Your task to perform on an android device: Install the Yahoo app Image 0: 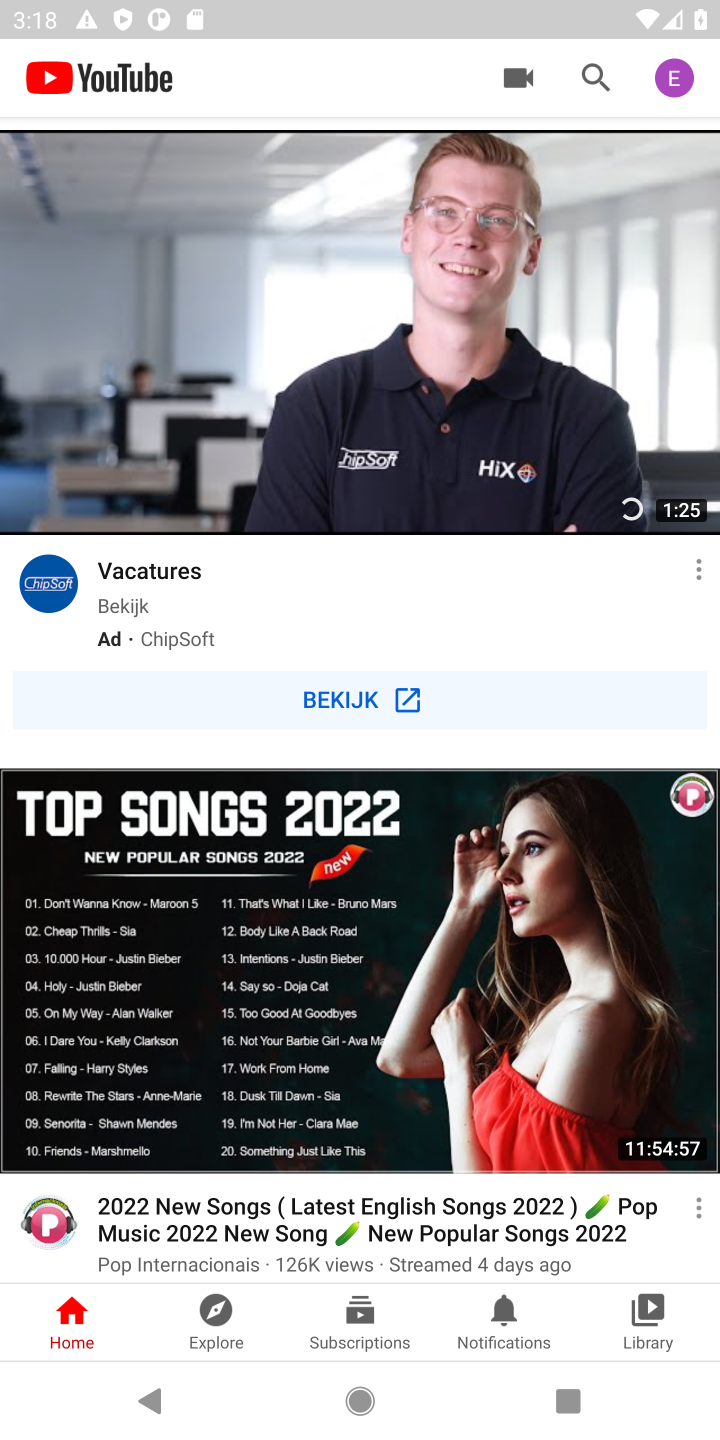
Step 0: press home button
Your task to perform on an android device: Install the Yahoo app Image 1: 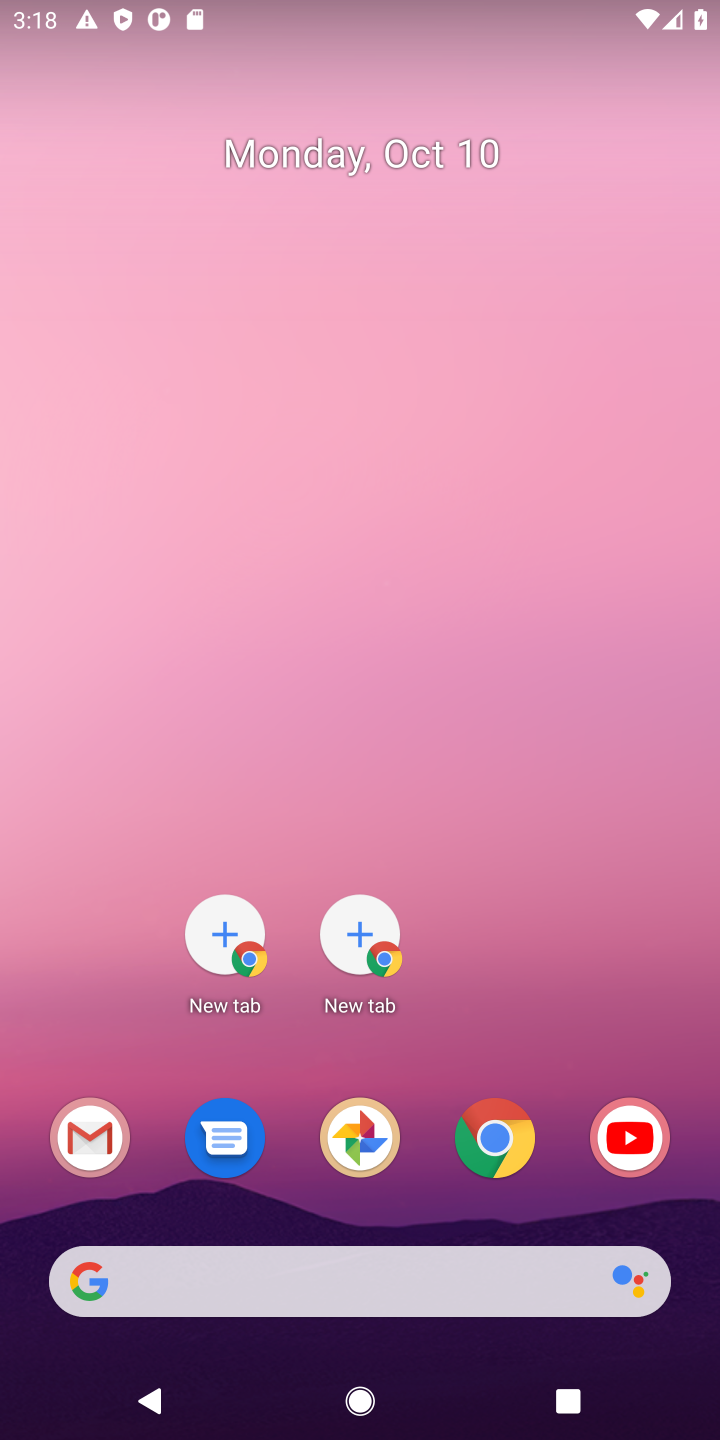
Step 1: drag from (361, 1252) to (376, 54)
Your task to perform on an android device: Install the Yahoo app Image 2: 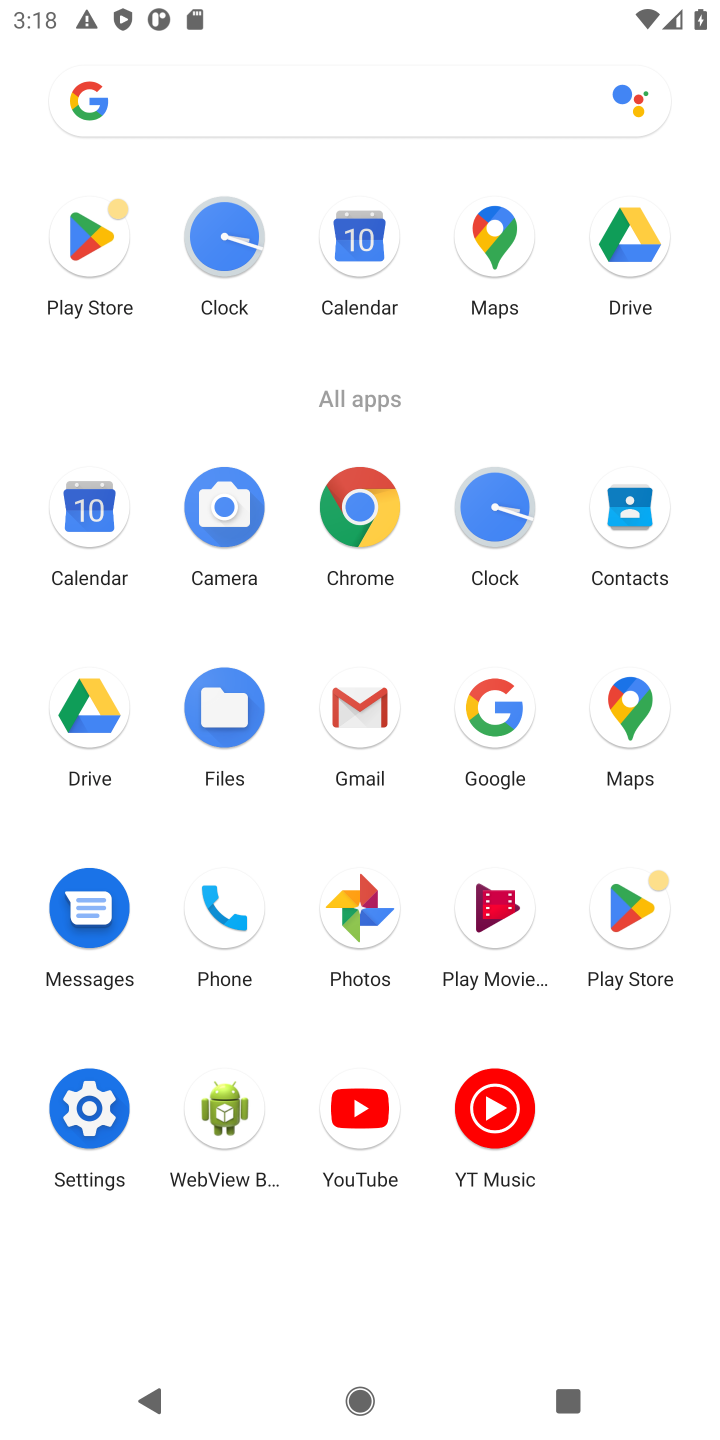
Step 2: click (654, 926)
Your task to perform on an android device: Install the Yahoo app Image 3: 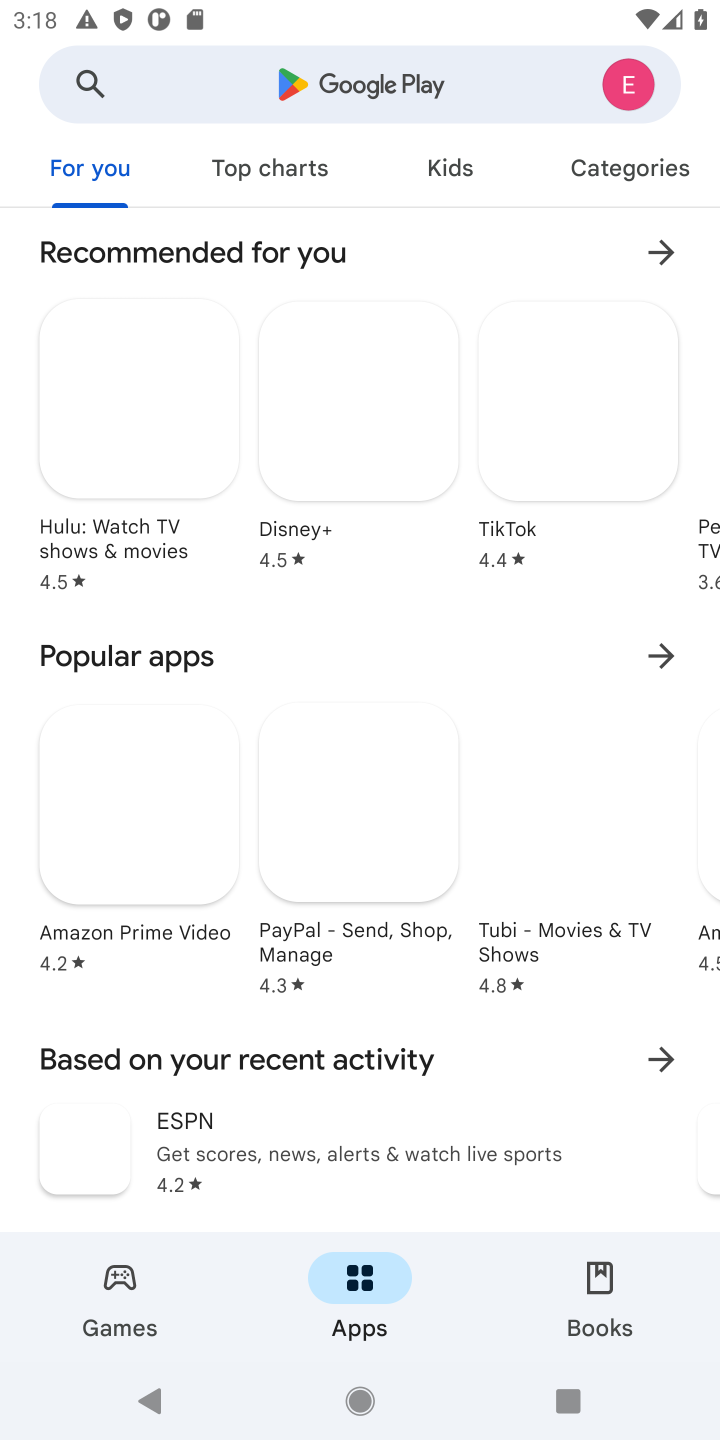
Step 3: click (377, 102)
Your task to perform on an android device: Install the Yahoo app Image 4: 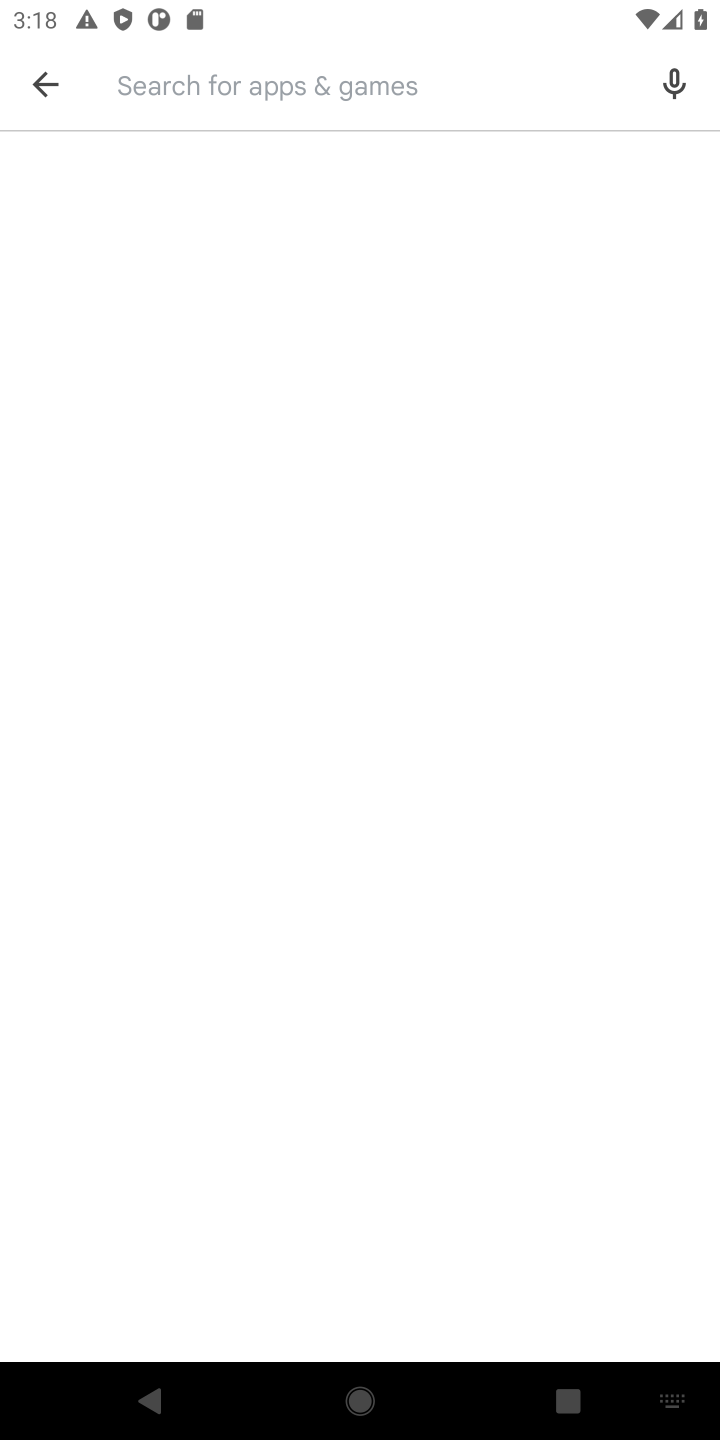
Step 4: type "yahoo"
Your task to perform on an android device: Install the Yahoo app Image 5: 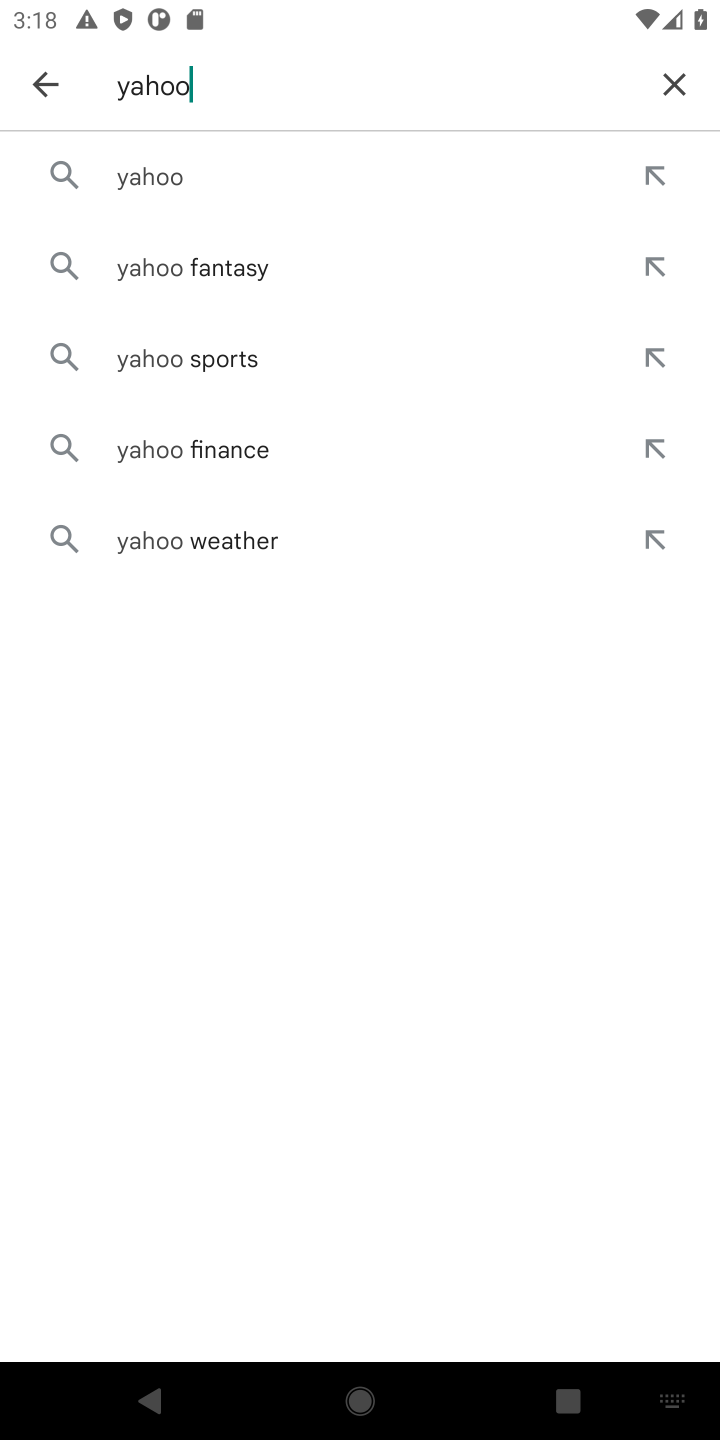
Step 5: type ""
Your task to perform on an android device: Install the Yahoo app Image 6: 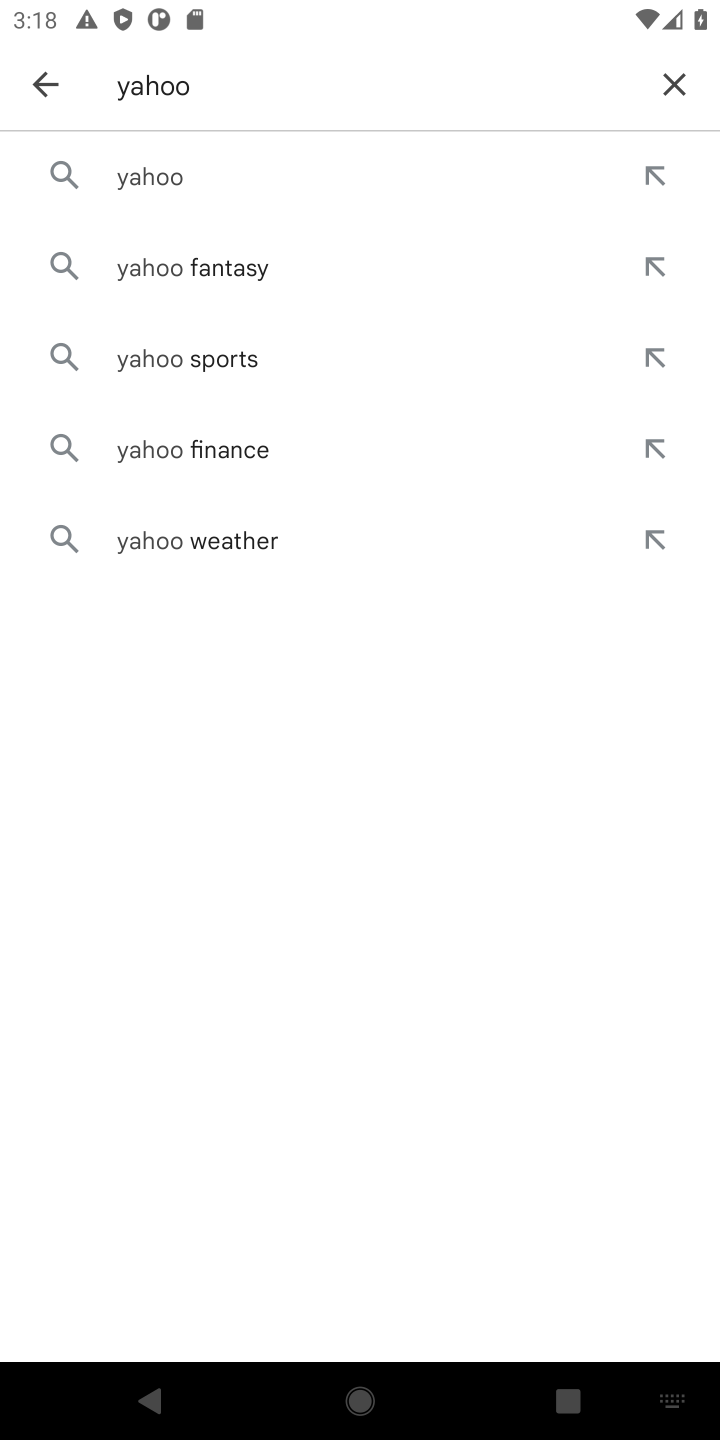
Step 6: press enter
Your task to perform on an android device: Install the Yahoo app Image 7: 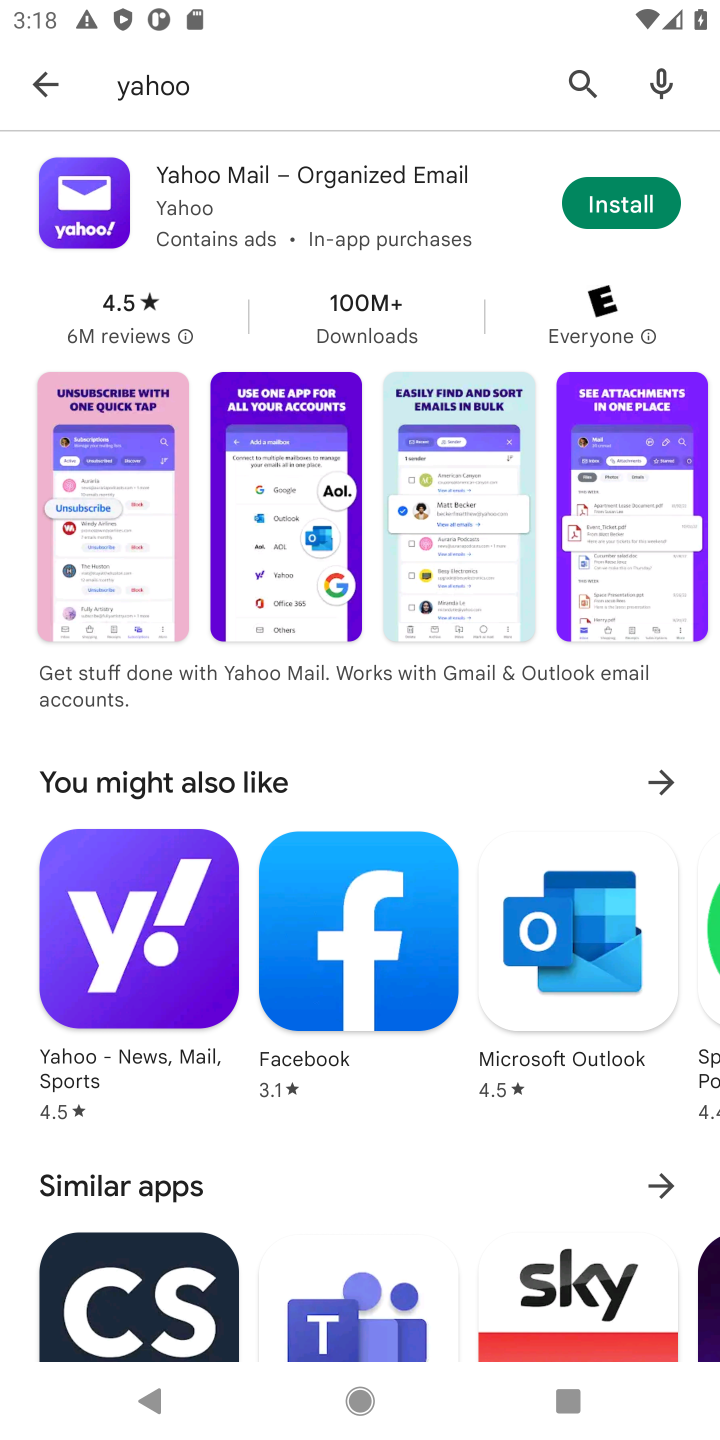
Step 7: click (628, 209)
Your task to perform on an android device: Install the Yahoo app Image 8: 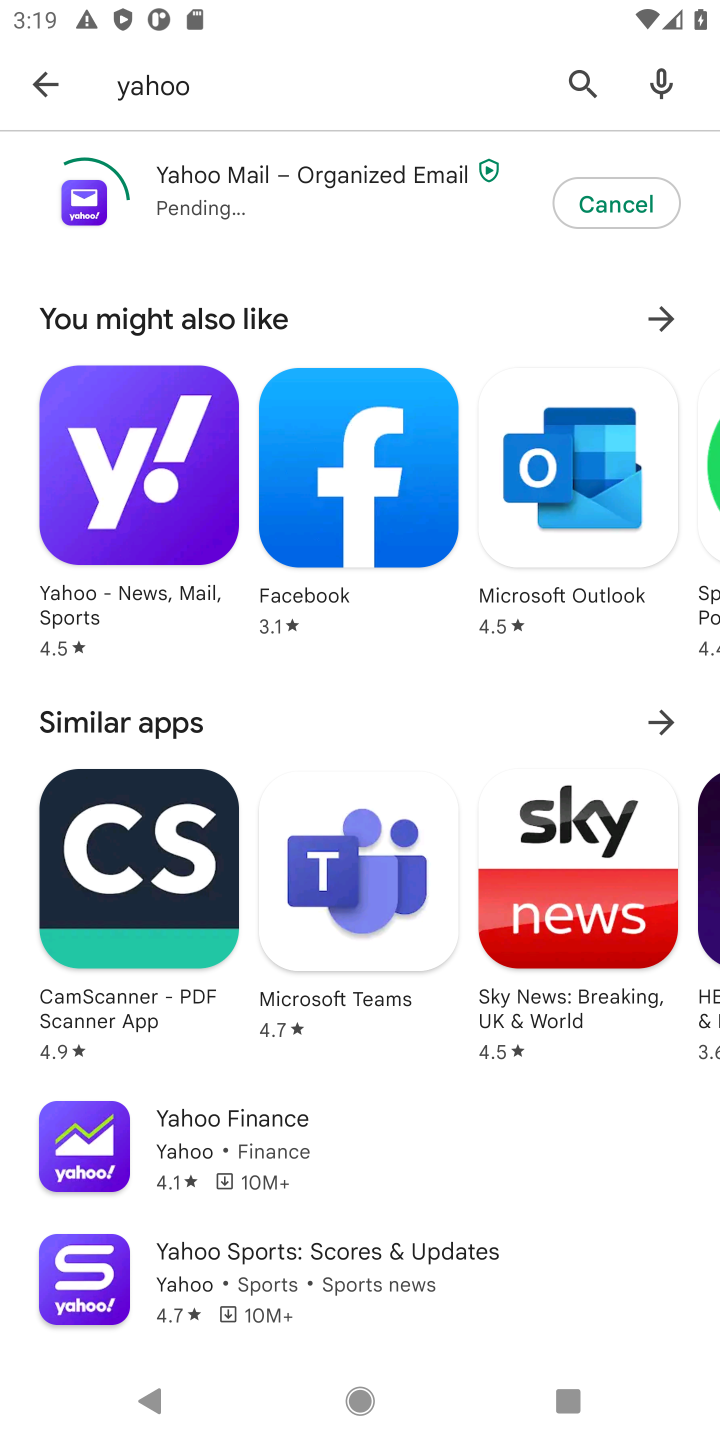
Step 8: click (128, 593)
Your task to perform on an android device: Install the Yahoo app Image 9: 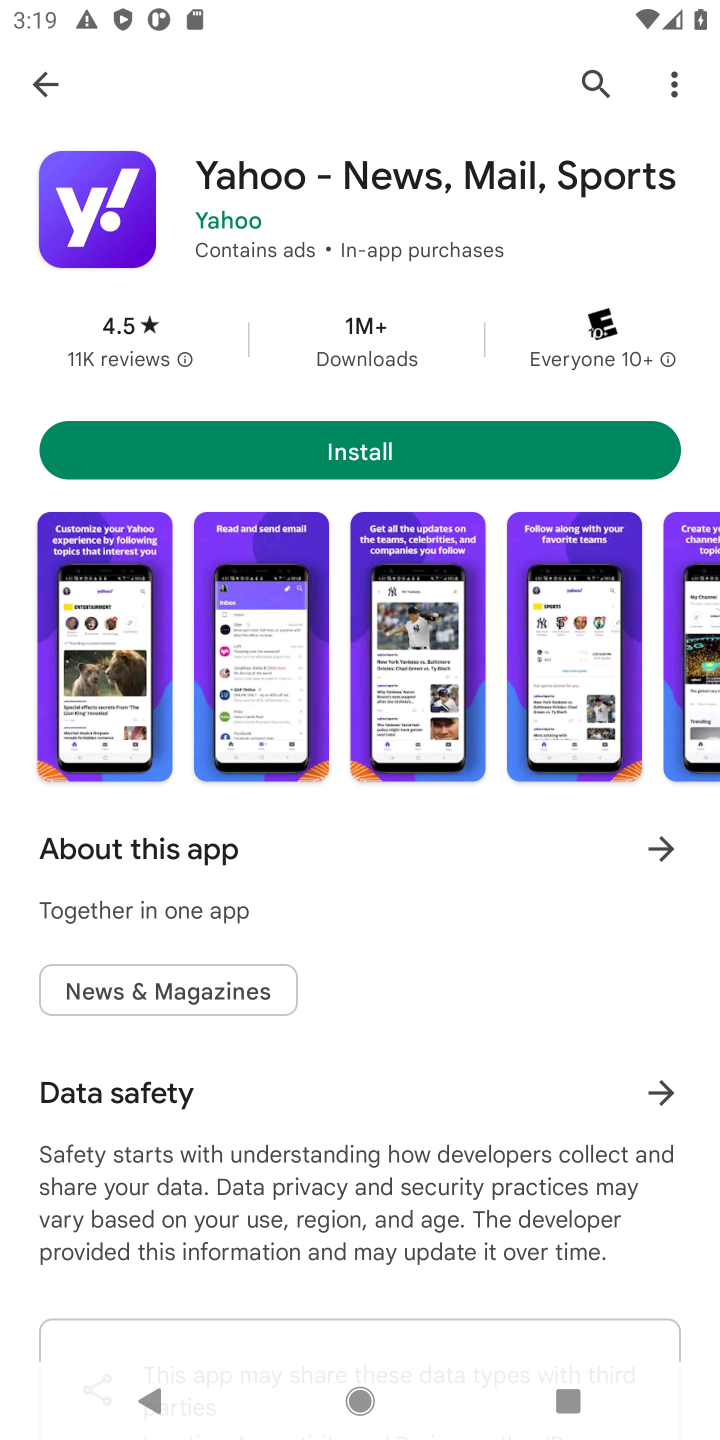
Step 9: click (505, 461)
Your task to perform on an android device: Install the Yahoo app Image 10: 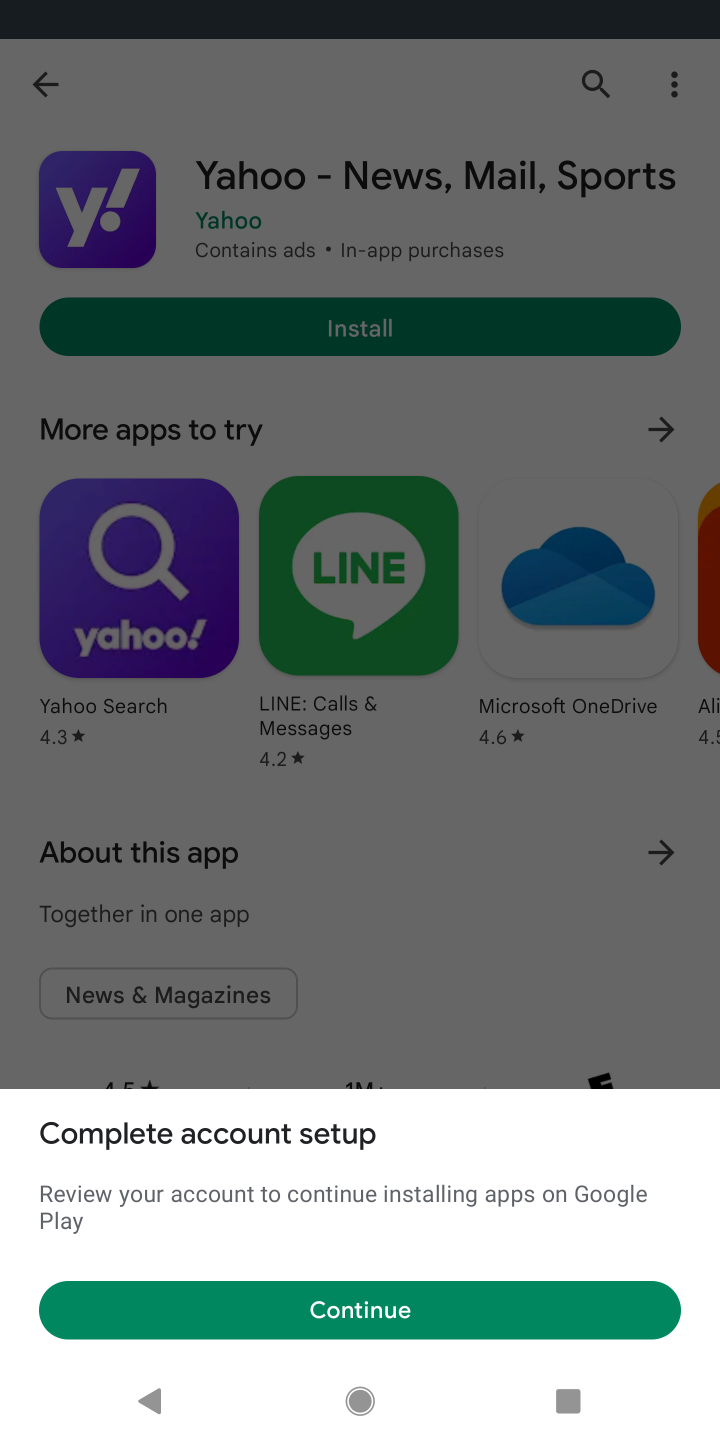
Step 10: click (411, 984)
Your task to perform on an android device: Install the Yahoo app Image 11: 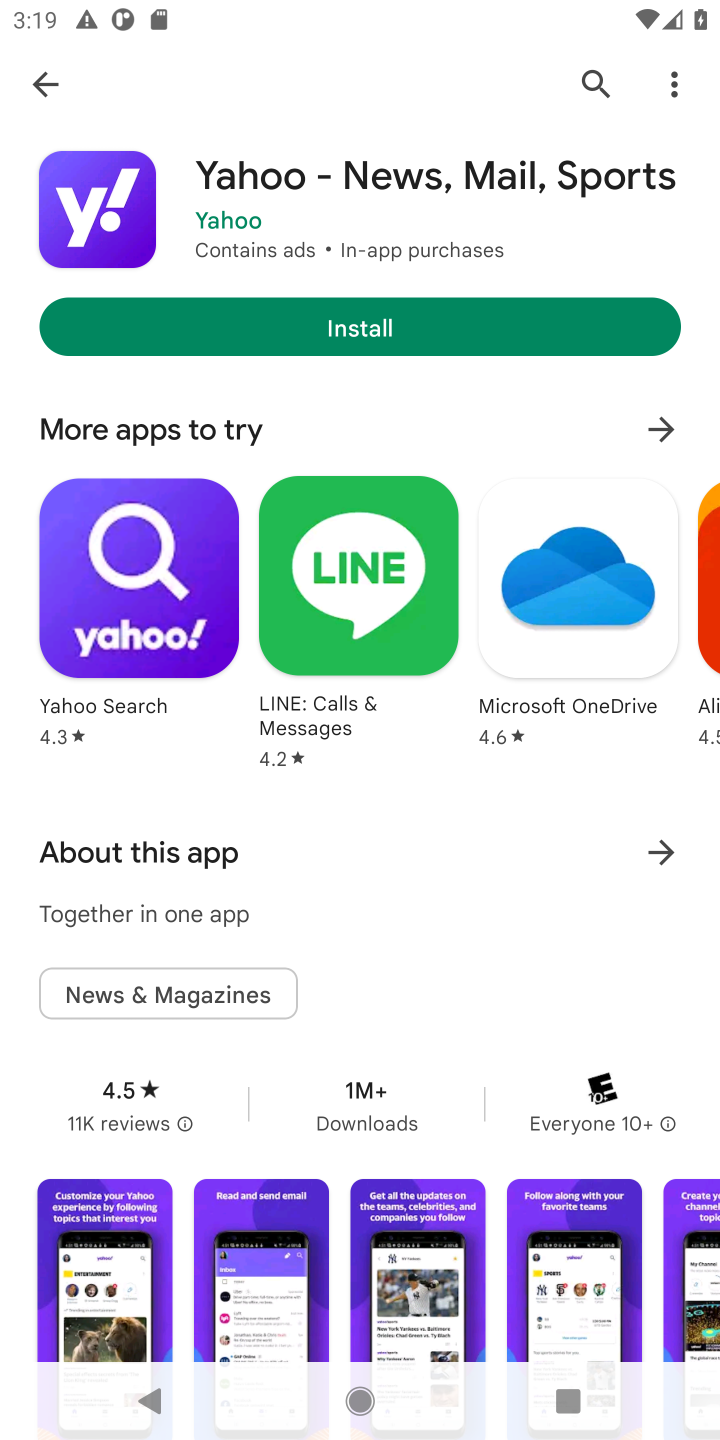
Step 11: click (424, 326)
Your task to perform on an android device: Install the Yahoo app Image 12: 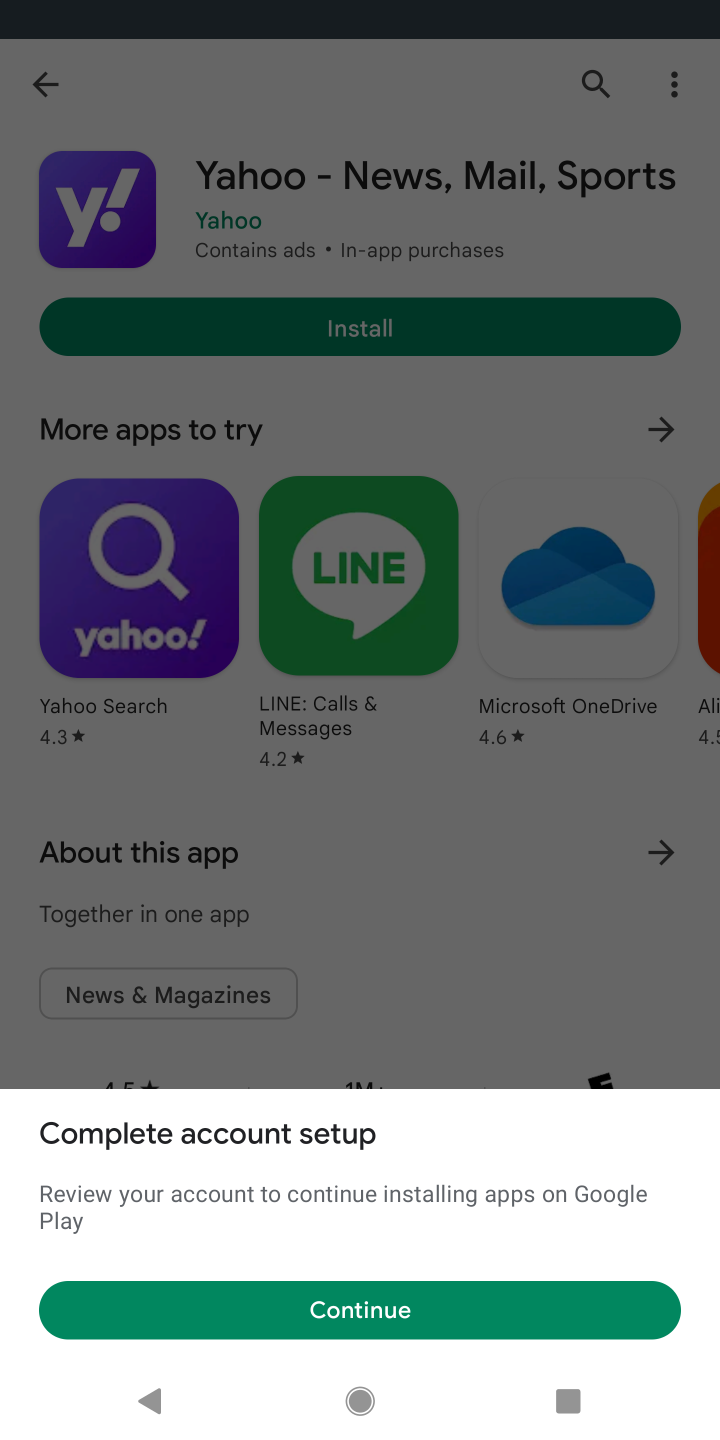
Step 12: click (479, 1331)
Your task to perform on an android device: Install the Yahoo app Image 13: 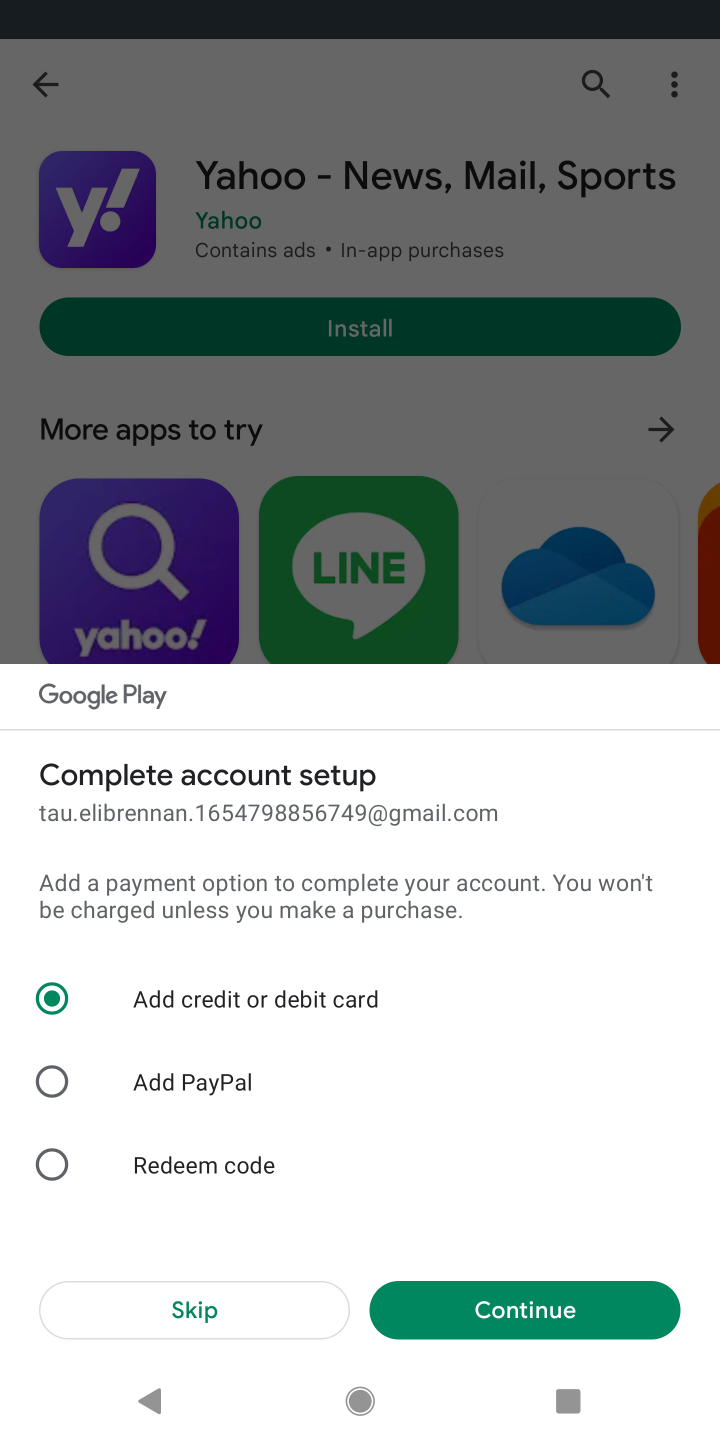
Step 13: click (242, 1308)
Your task to perform on an android device: Install the Yahoo app Image 14: 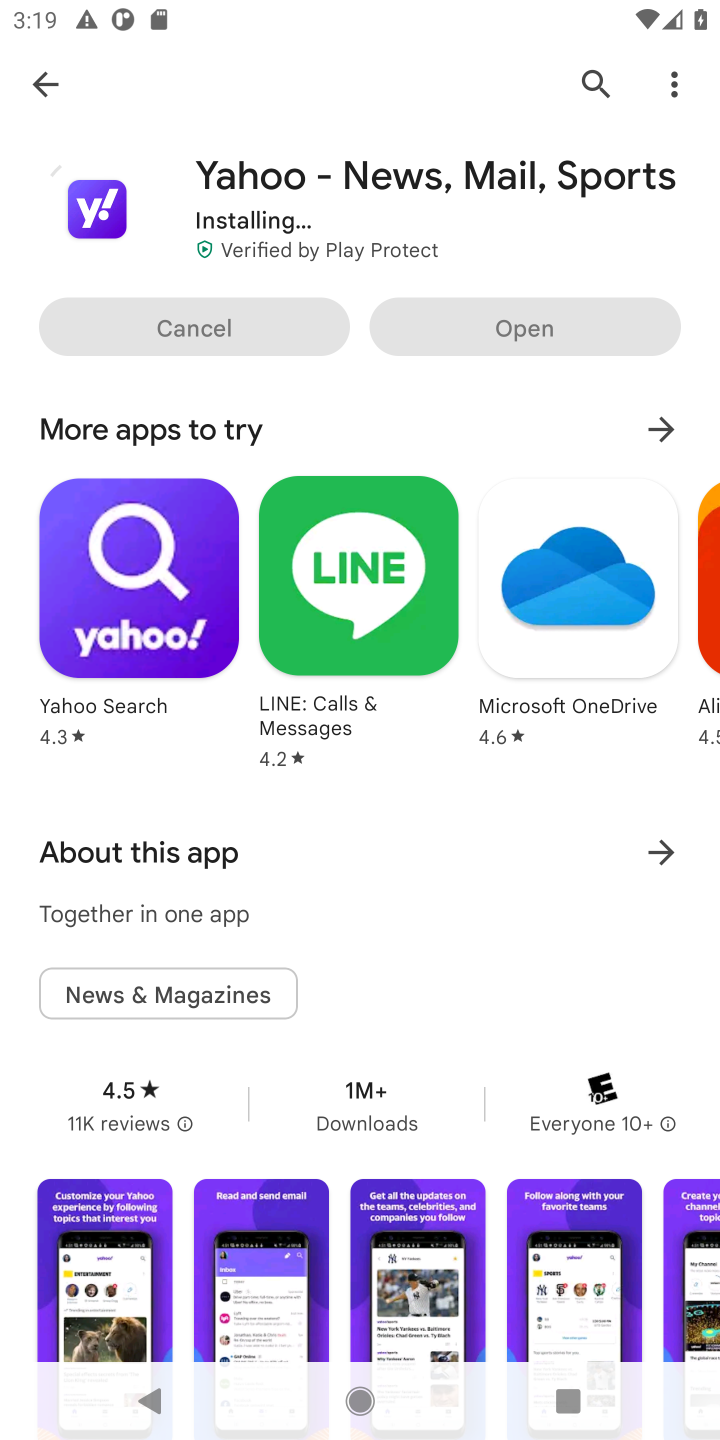
Step 14: task complete